Your task to perform on an android device: create a new album in the google photos Image 0: 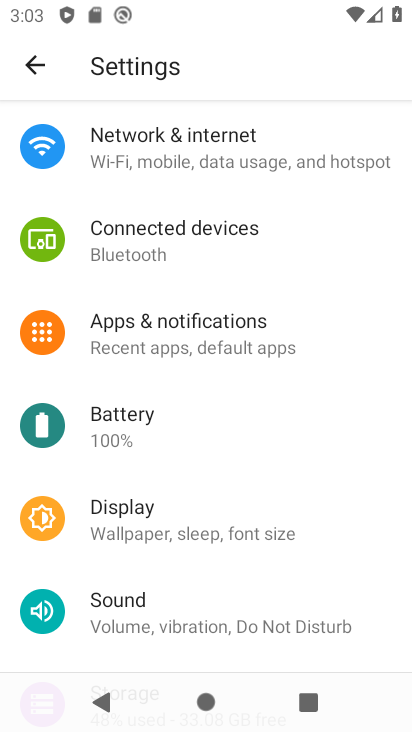
Step 0: press home button
Your task to perform on an android device: create a new album in the google photos Image 1: 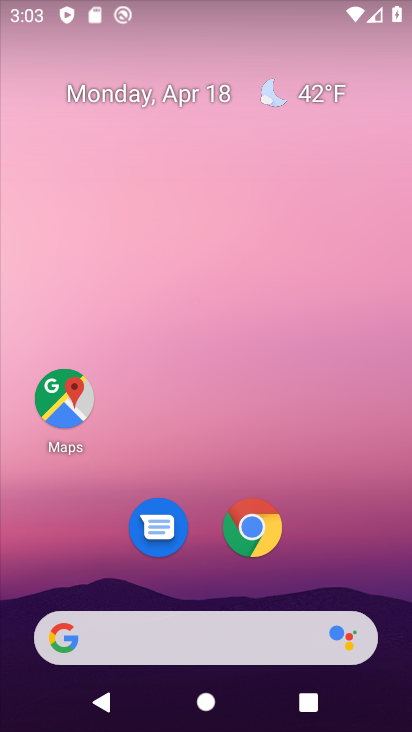
Step 1: drag from (217, 497) to (236, 98)
Your task to perform on an android device: create a new album in the google photos Image 2: 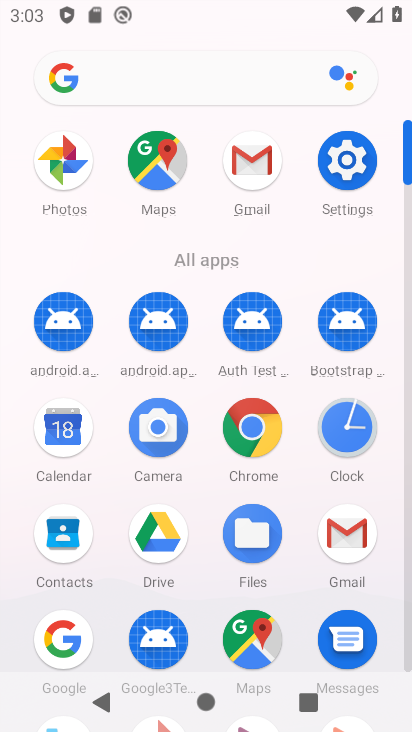
Step 2: click (72, 171)
Your task to perform on an android device: create a new album in the google photos Image 3: 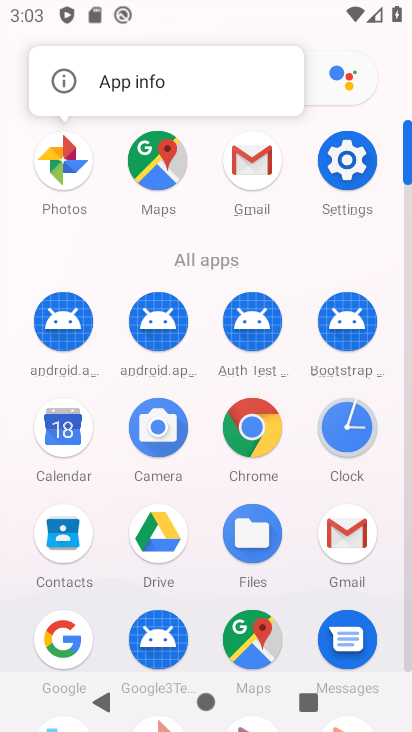
Step 3: click (62, 163)
Your task to perform on an android device: create a new album in the google photos Image 4: 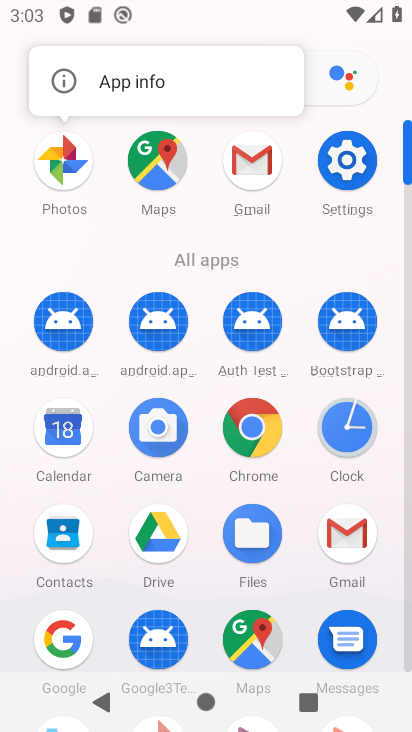
Step 4: click (66, 161)
Your task to perform on an android device: create a new album in the google photos Image 5: 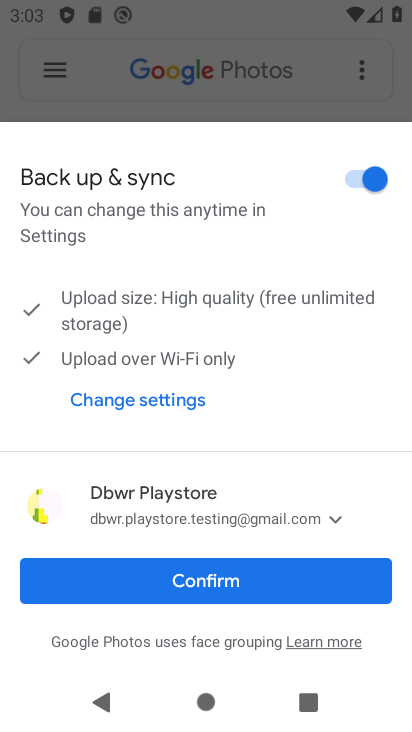
Step 5: click (276, 95)
Your task to perform on an android device: create a new album in the google photos Image 6: 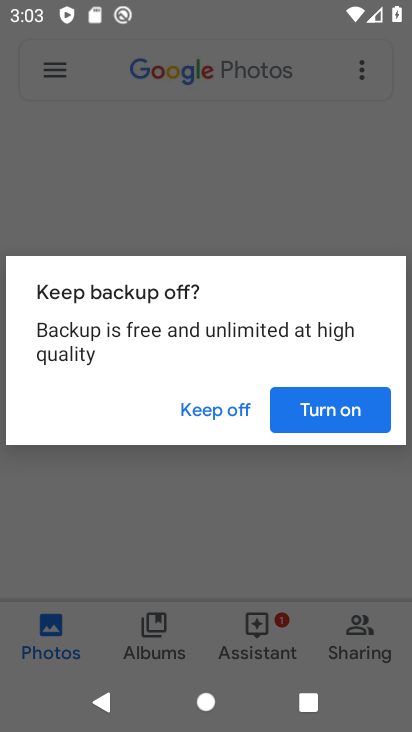
Step 6: click (226, 415)
Your task to perform on an android device: create a new album in the google photos Image 7: 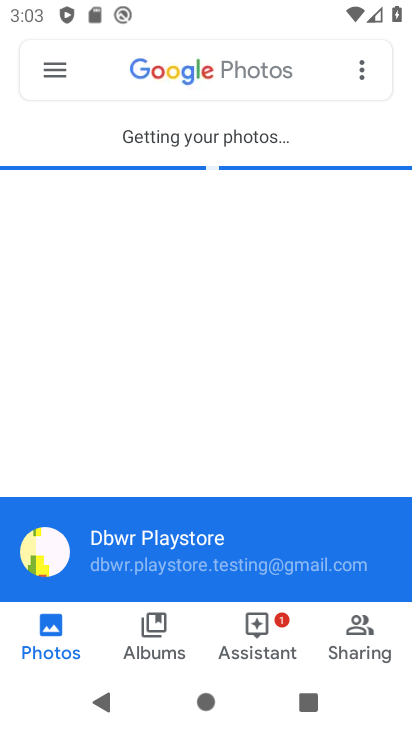
Step 7: click (61, 65)
Your task to perform on an android device: create a new album in the google photos Image 8: 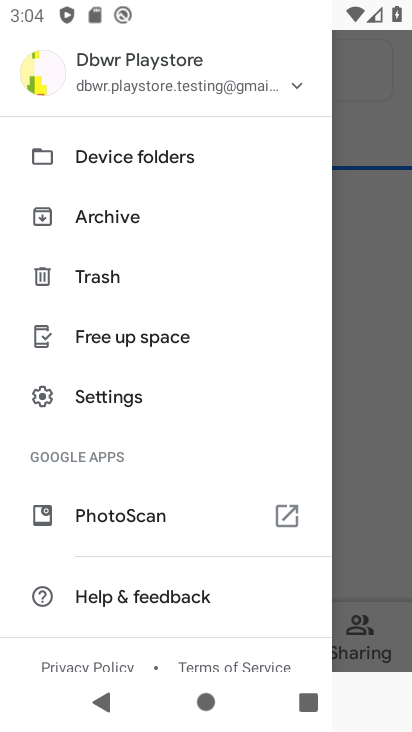
Step 8: click (386, 226)
Your task to perform on an android device: create a new album in the google photos Image 9: 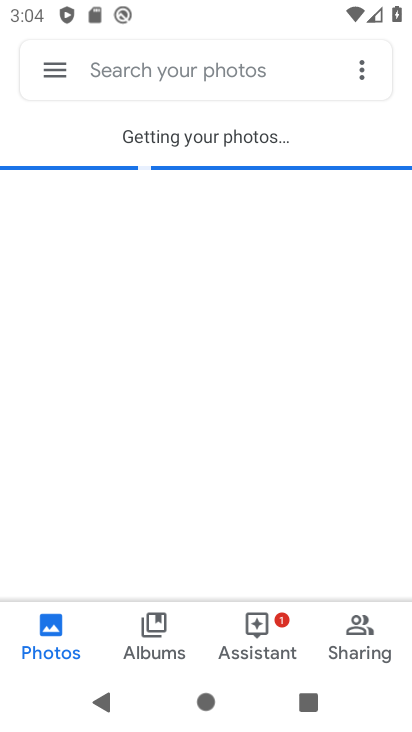
Step 9: click (357, 379)
Your task to perform on an android device: create a new album in the google photos Image 10: 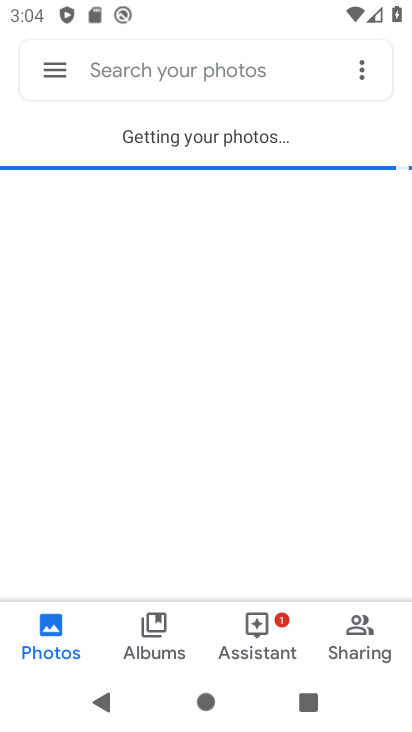
Step 10: click (161, 646)
Your task to perform on an android device: create a new album in the google photos Image 11: 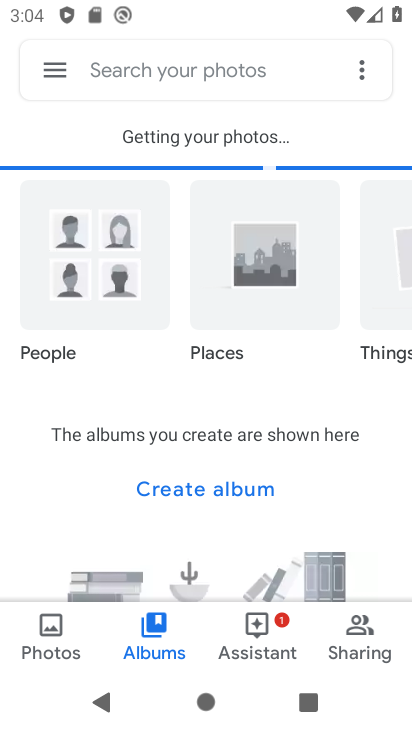
Step 11: click (190, 489)
Your task to perform on an android device: create a new album in the google photos Image 12: 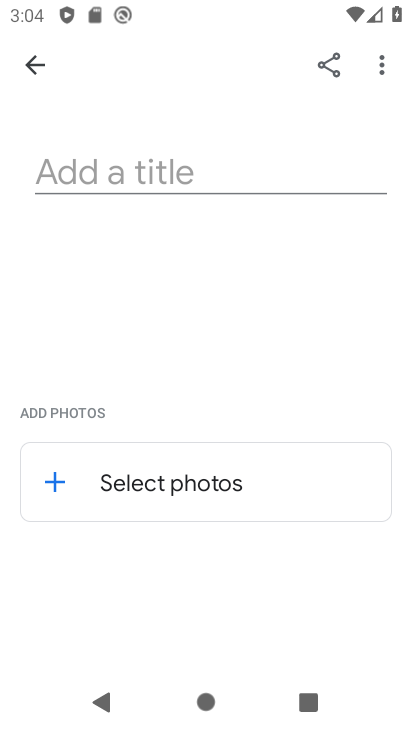
Step 12: click (151, 174)
Your task to perform on an android device: create a new album in the google photos Image 13: 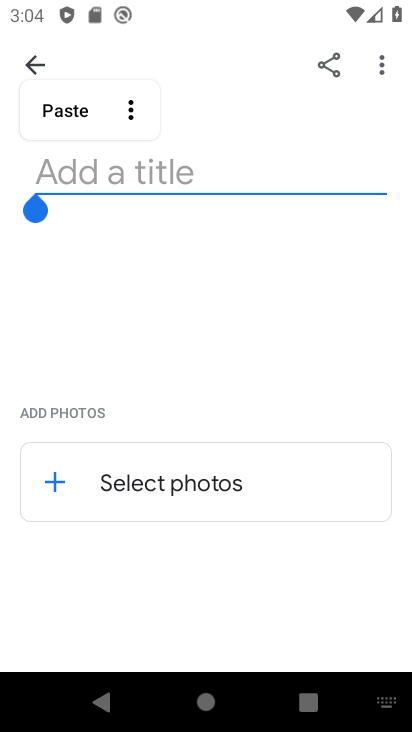
Step 13: type "sf"
Your task to perform on an android device: create a new album in the google photos Image 14: 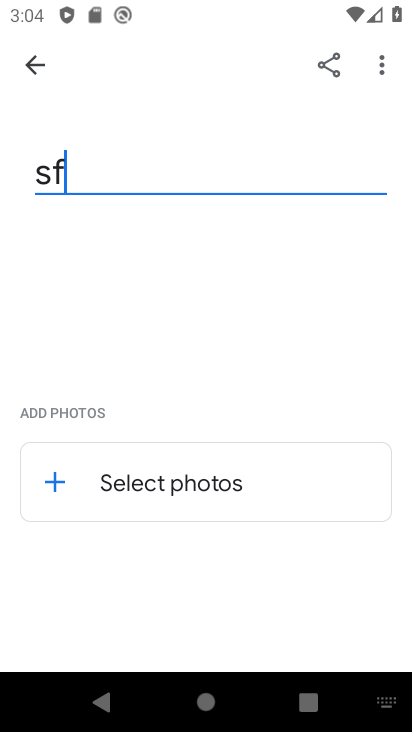
Step 14: click (144, 495)
Your task to perform on an android device: create a new album in the google photos Image 15: 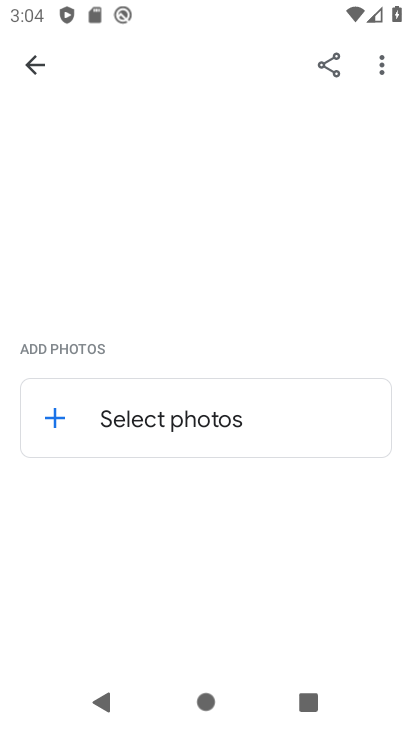
Step 15: click (56, 417)
Your task to perform on an android device: create a new album in the google photos Image 16: 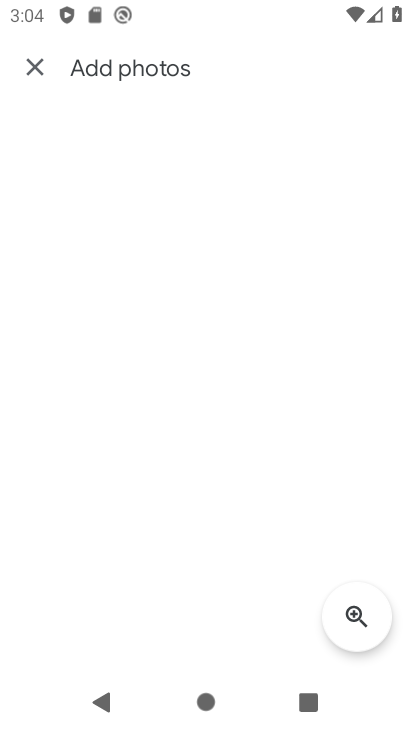
Step 16: click (108, 157)
Your task to perform on an android device: create a new album in the google photos Image 17: 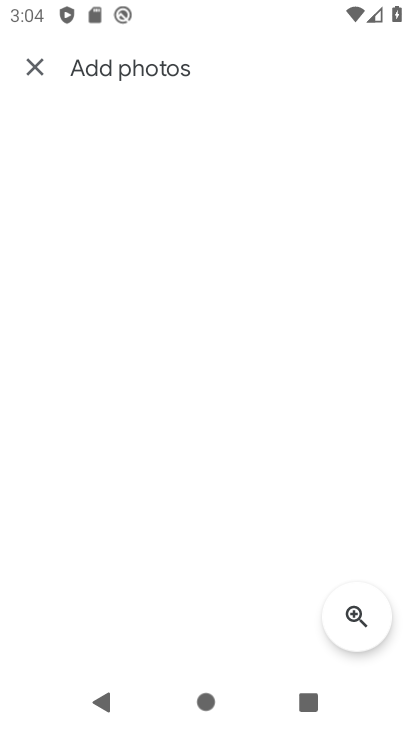
Step 17: drag from (336, 201) to (237, 257)
Your task to perform on an android device: create a new album in the google photos Image 18: 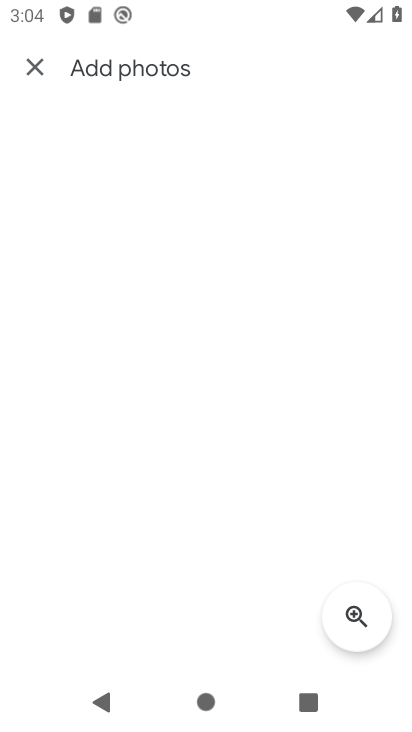
Step 18: drag from (155, 431) to (140, 162)
Your task to perform on an android device: create a new album in the google photos Image 19: 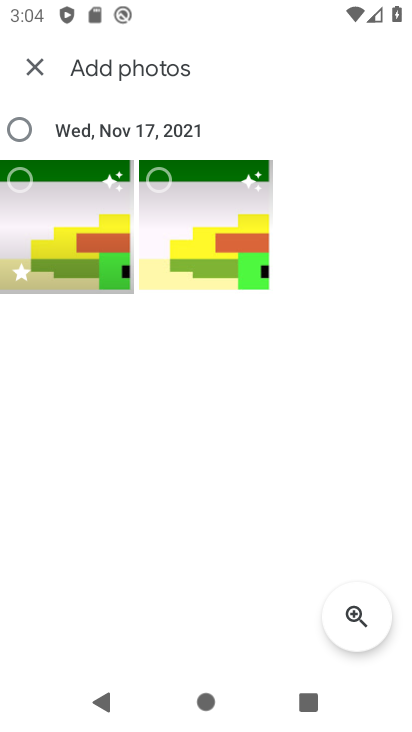
Step 19: drag from (188, 156) to (190, 219)
Your task to perform on an android device: create a new album in the google photos Image 20: 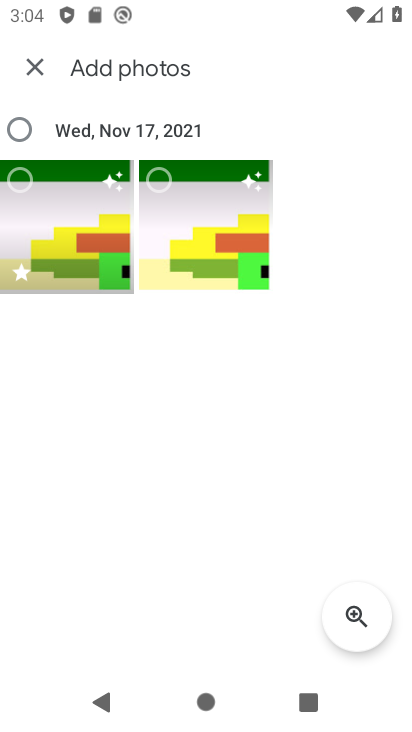
Step 20: click (24, 134)
Your task to perform on an android device: create a new album in the google photos Image 21: 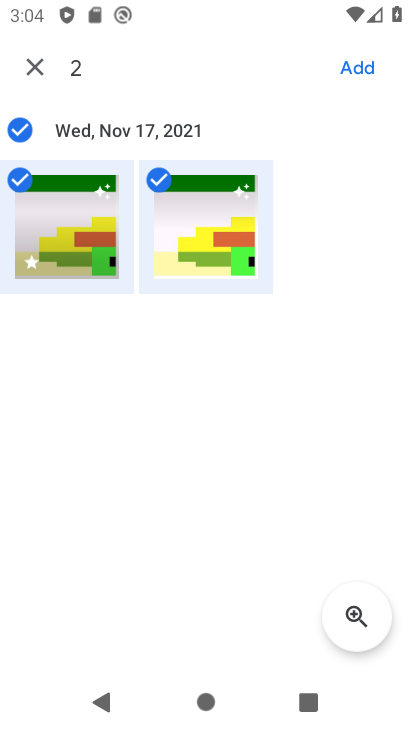
Step 21: click (352, 70)
Your task to perform on an android device: create a new album in the google photos Image 22: 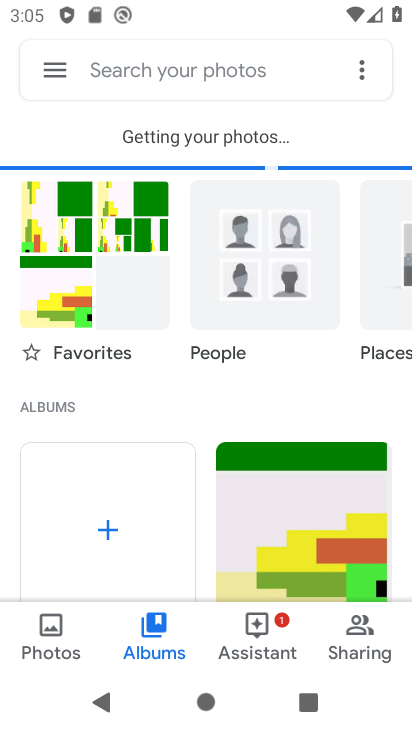
Step 22: task complete